Your task to perform on an android device: change the clock style Image 0: 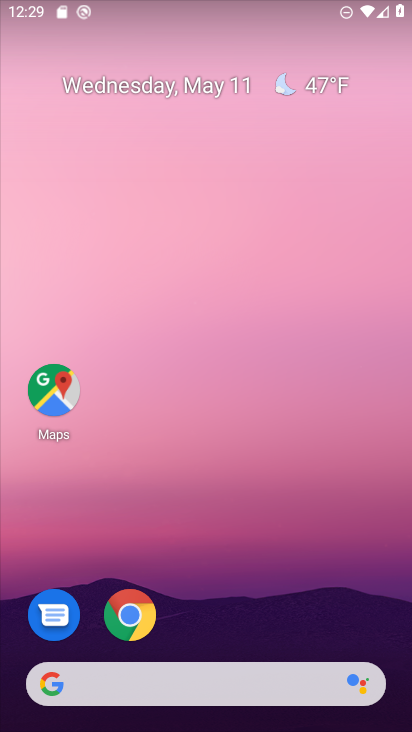
Step 0: drag from (337, 569) to (209, 3)
Your task to perform on an android device: change the clock style Image 1: 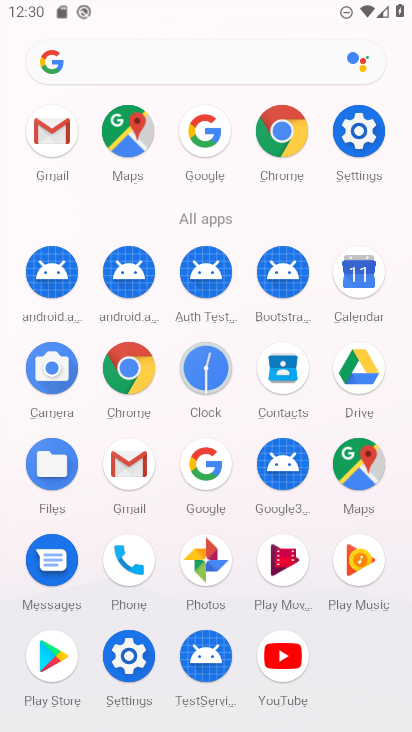
Step 1: click (201, 370)
Your task to perform on an android device: change the clock style Image 2: 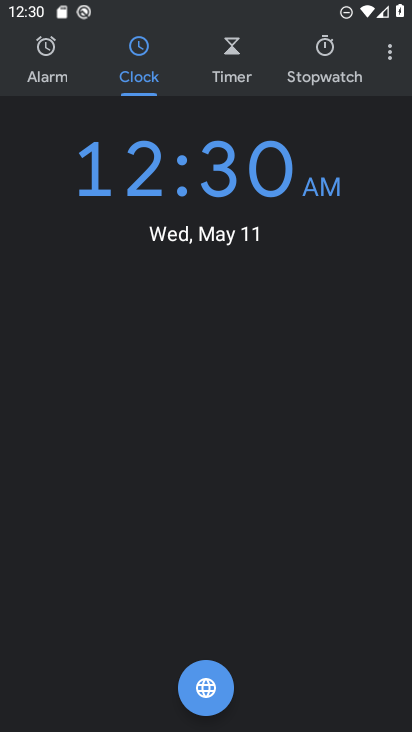
Step 2: click (403, 57)
Your task to perform on an android device: change the clock style Image 3: 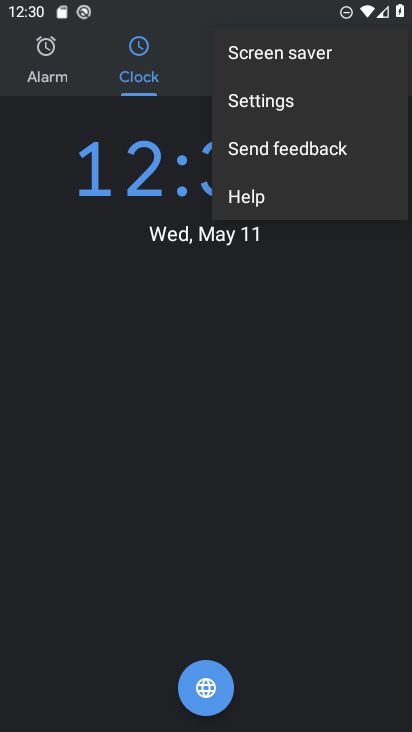
Step 3: click (253, 100)
Your task to perform on an android device: change the clock style Image 4: 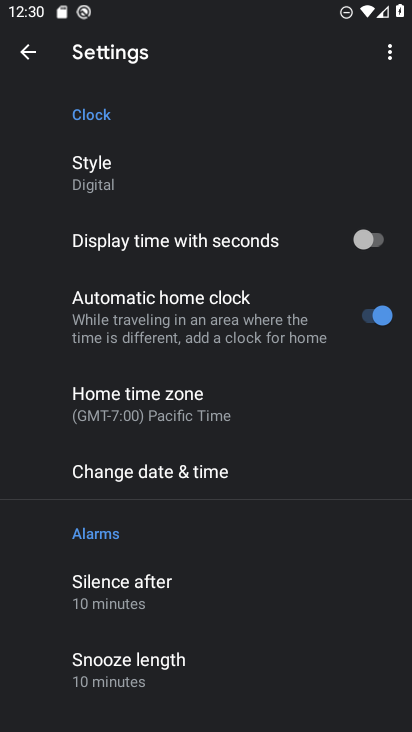
Step 4: click (108, 177)
Your task to perform on an android device: change the clock style Image 5: 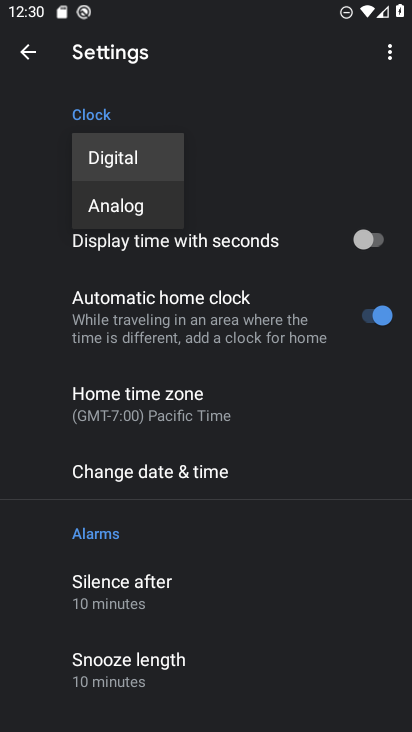
Step 5: click (118, 214)
Your task to perform on an android device: change the clock style Image 6: 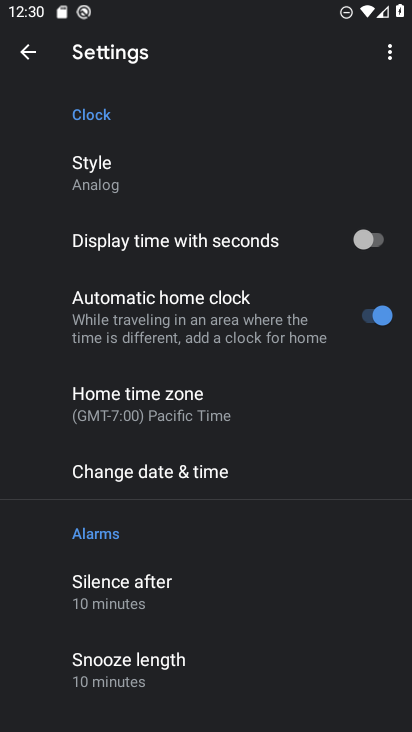
Step 6: task complete